Your task to perform on an android device: What's the weather going to be tomorrow? Image 0: 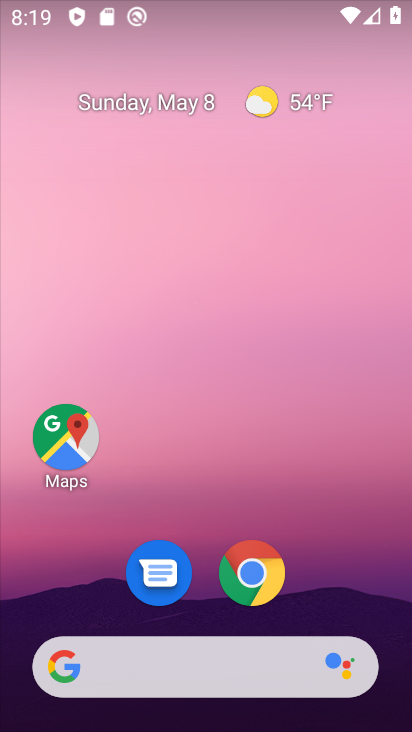
Step 0: click (256, 99)
Your task to perform on an android device: What's the weather going to be tomorrow? Image 1: 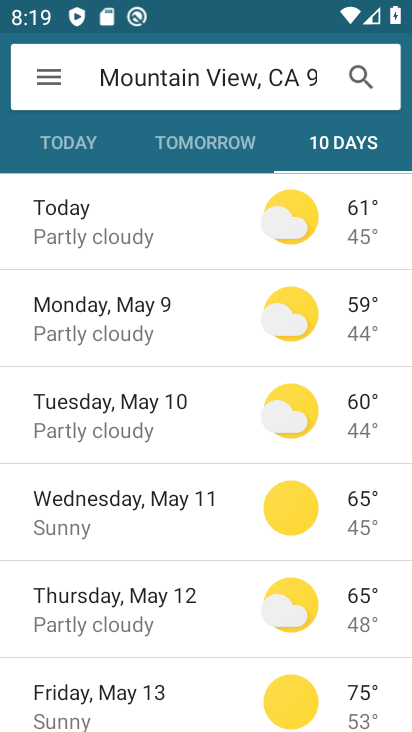
Step 1: click (185, 130)
Your task to perform on an android device: What's the weather going to be tomorrow? Image 2: 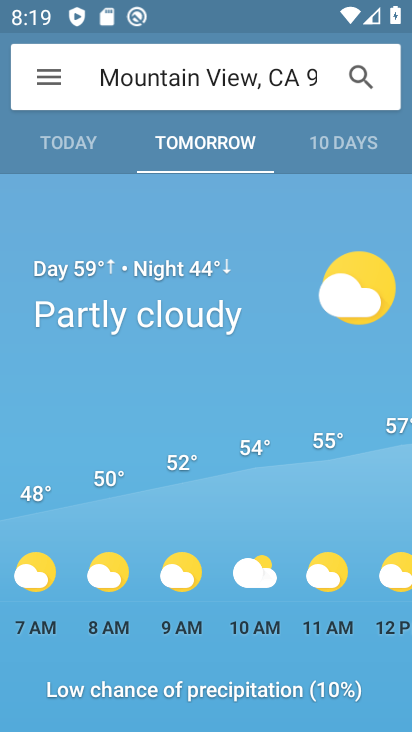
Step 2: task complete